Your task to perform on an android device: toggle priority inbox in the gmail app Image 0: 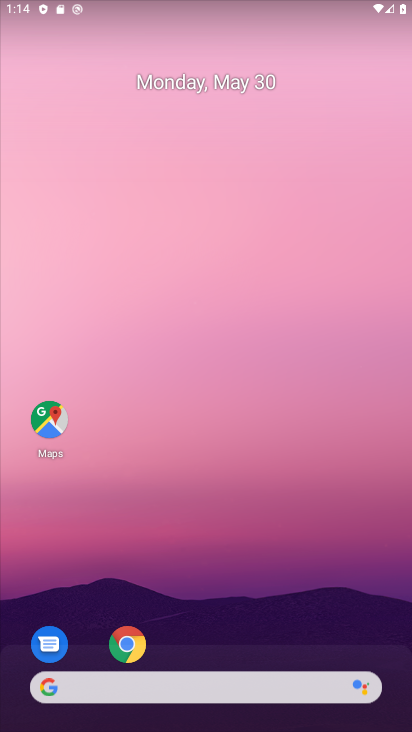
Step 0: drag from (216, 18) to (288, 2)
Your task to perform on an android device: toggle priority inbox in the gmail app Image 1: 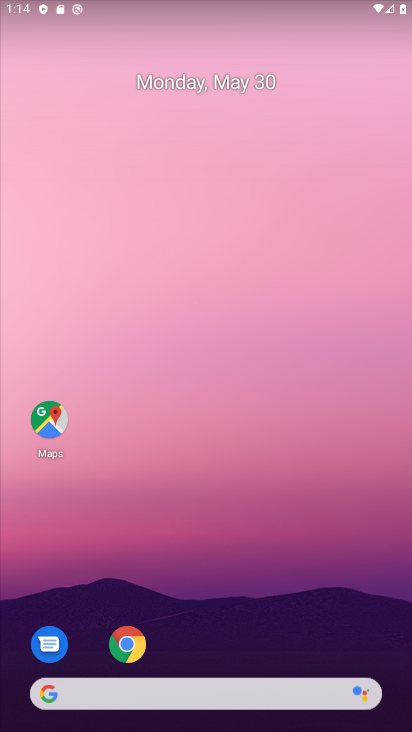
Step 1: click (227, 174)
Your task to perform on an android device: toggle priority inbox in the gmail app Image 2: 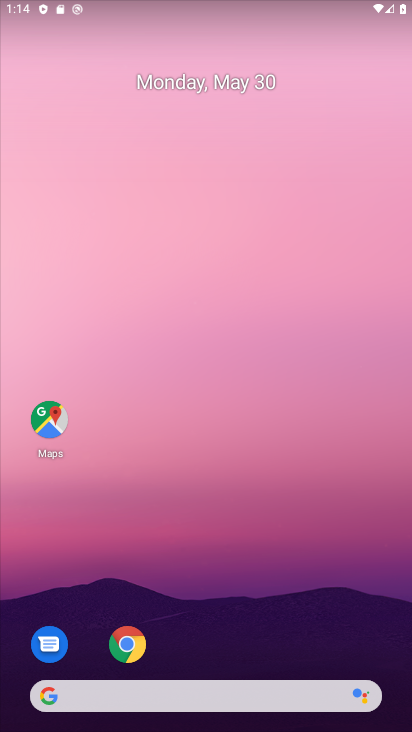
Step 2: drag from (158, 647) to (179, 138)
Your task to perform on an android device: toggle priority inbox in the gmail app Image 3: 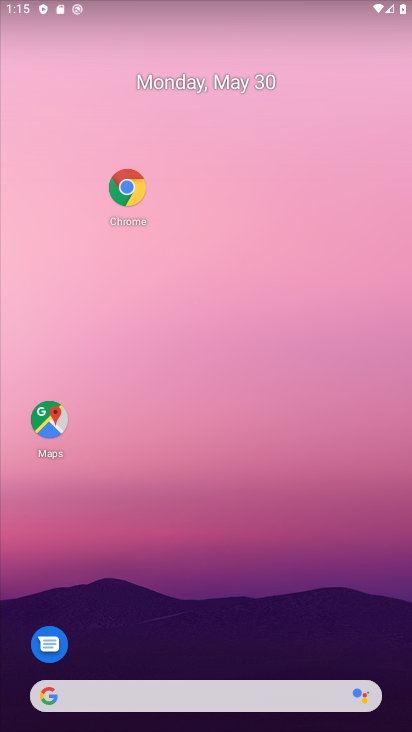
Step 3: drag from (169, 629) to (190, 87)
Your task to perform on an android device: toggle priority inbox in the gmail app Image 4: 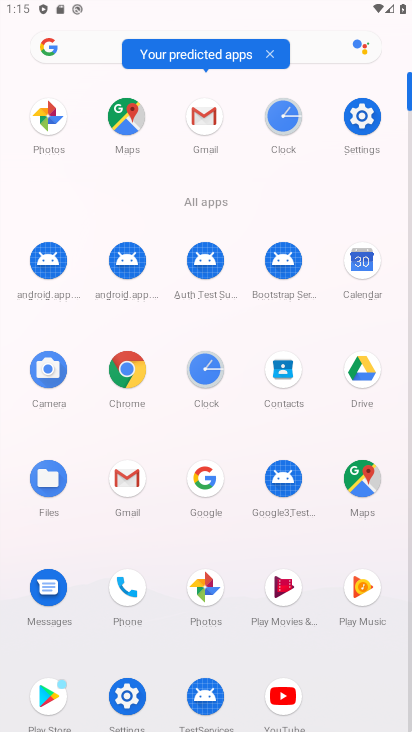
Step 4: click (194, 127)
Your task to perform on an android device: toggle priority inbox in the gmail app Image 5: 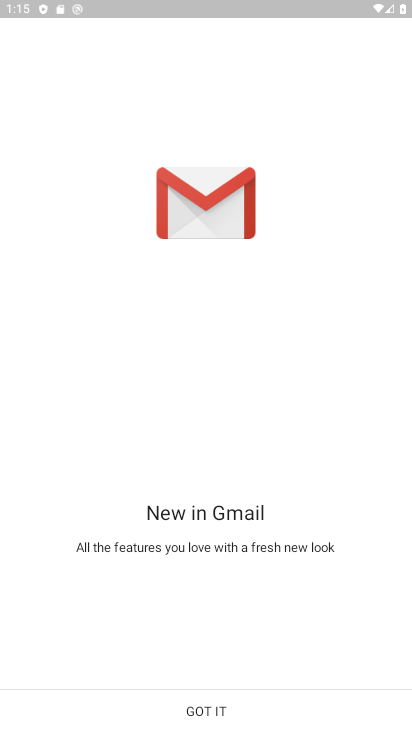
Step 5: click (183, 714)
Your task to perform on an android device: toggle priority inbox in the gmail app Image 6: 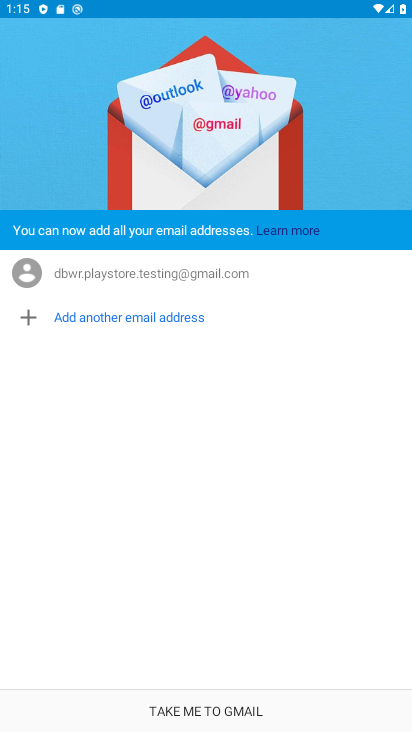
Step 6: click (161, 704)
Your task to perform on an android device: toggle priority inbox in the gmail app Image 7: 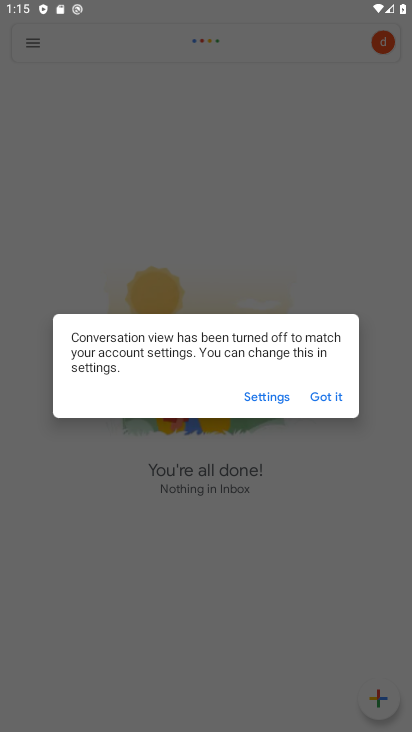
Step 7: click (332, 400)
Your task to perform on an android device: toggle priority inbox in the gmail app Image 8: 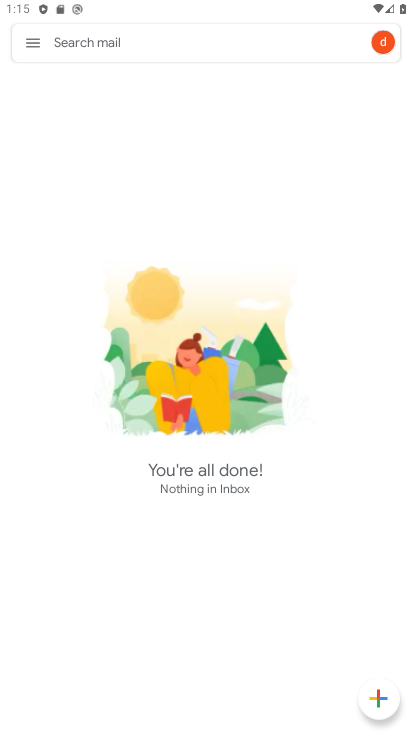
Step 8: click (39, 46)
Your task to perform on an android device: toggle priority inbox in the gmail app Image 9: 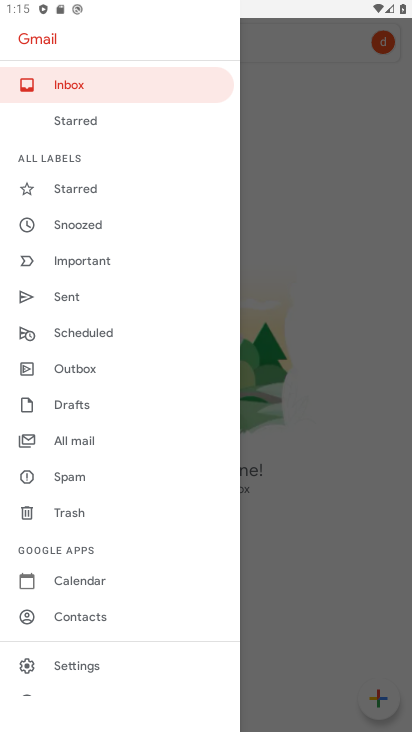
Step 9: click (70, 666)
Your task to perform on an android device: toggle priority inbox in the gmail app Image 10: 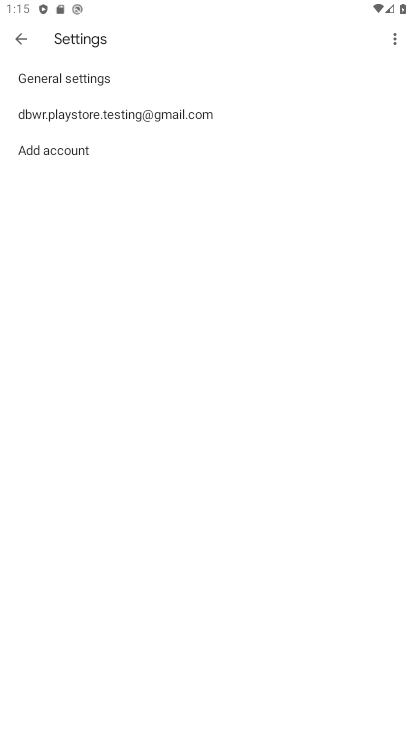
Step 10: click (157, 110)
Your task to perform on an android device: toggle priority inbox in the gmail app Image 11: 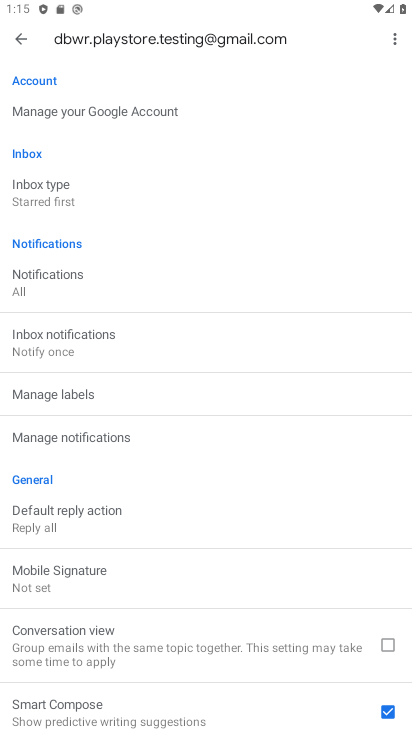
Step 11: click (54, 200)
Your task to perform on an android device: toggle priority inbox in the gmail app Image 12: 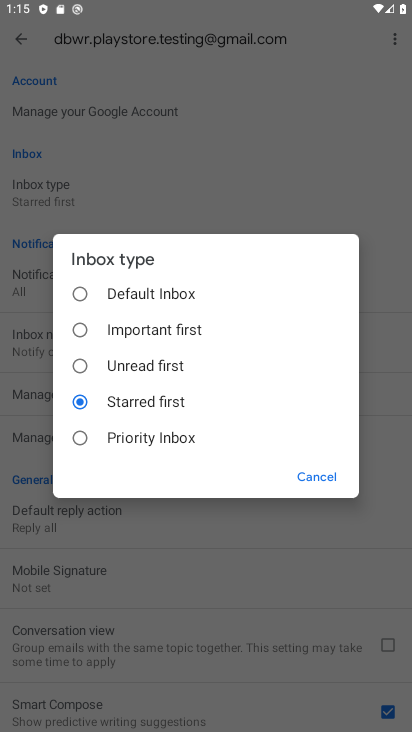
Step 12: drag from (160, 447) to (121, 438)
Your task to perform on an android device: toggle priority inbox in the gmail app Image 13: 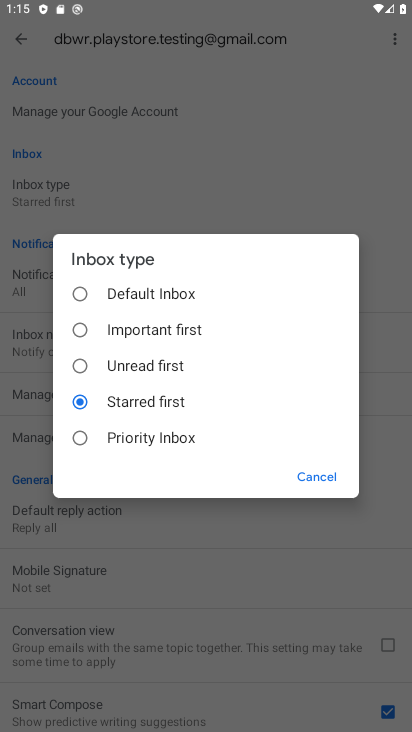
Step 13: click (121, 438)
Your task to perform on an android device: toggle priority inbox in the gmail app Image 14: 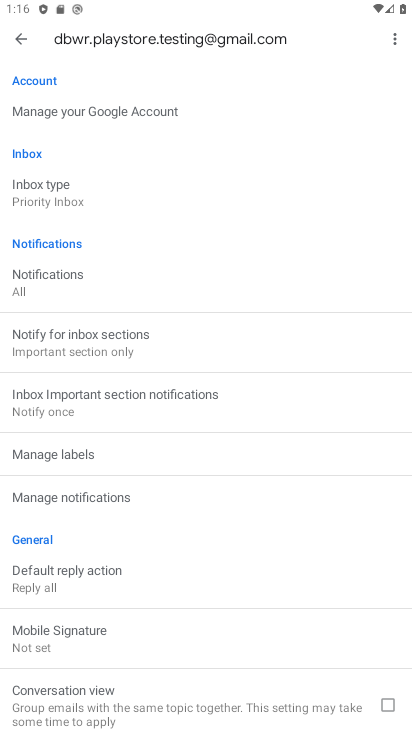
Step 14: task complete